Your task to perform on an android device: Open the Play Movies app and select the watchlist tab. Image 0: 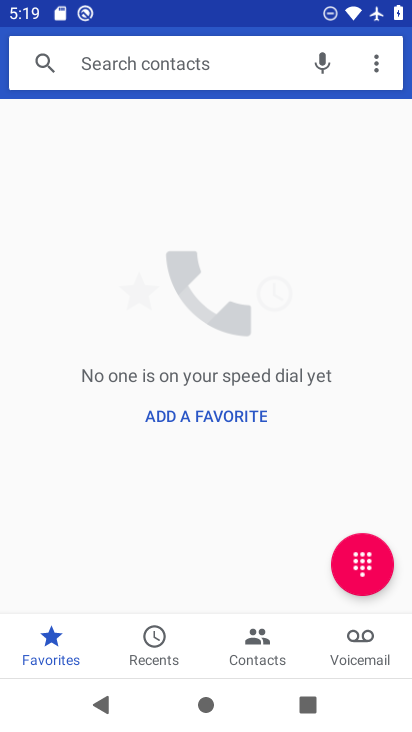
Step 0: press home button
Your task to perform on an android device: Open the Play Movies app and select the watchlist tab. Image 1: 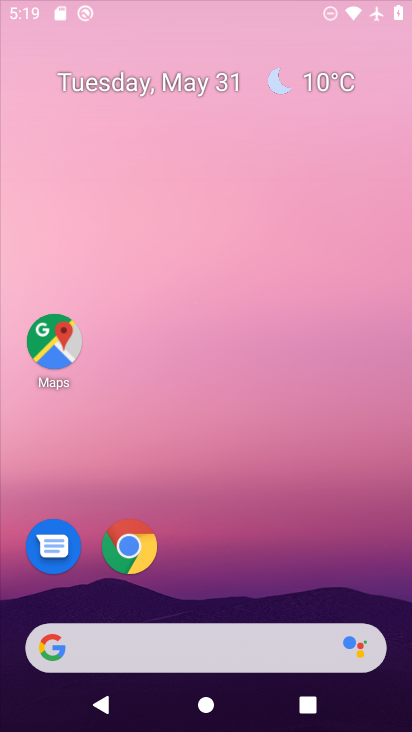
Step 1: drag from (297, 526) to (178, 57)
Your task to perform on an android device: Open the Play Movies app and select the watchlist tab. Image 2: 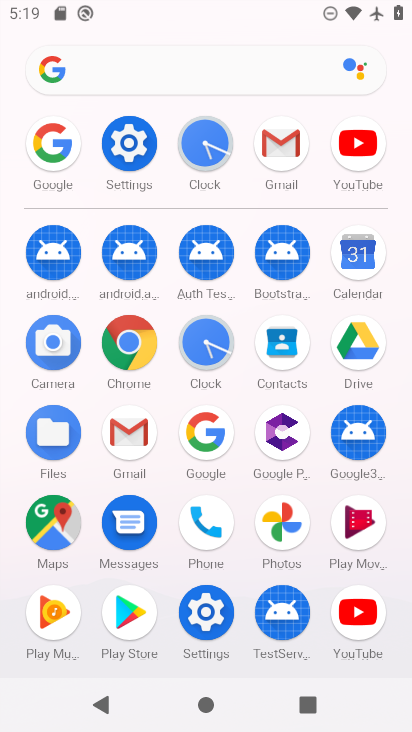
Step 2: click (368, 532)
Your task to perform on an android device: Open the Play Movies app and select the watchlist tab. Image 3: 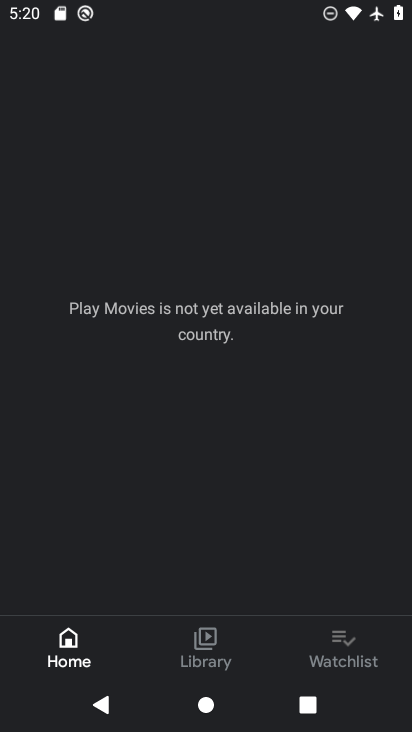
Step 3: click (365, 643)
Your task to perform on an android device: Open the Play Movies app and select the watchlist tab. Image 4: 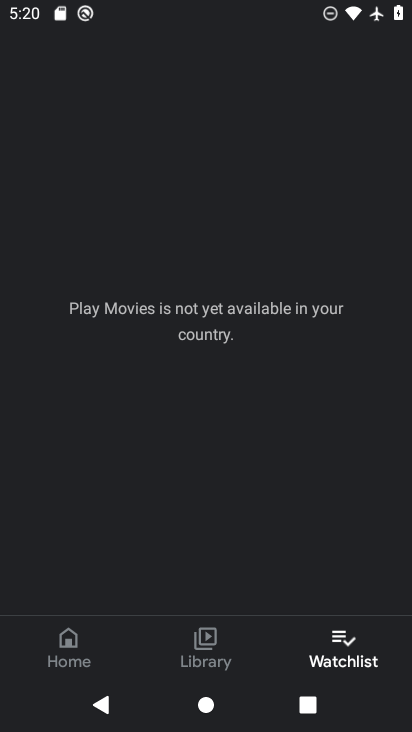
Step 4: task complete